Your task to perform on an android device: Open Google Chrome and open the bookmarks view Image 0: 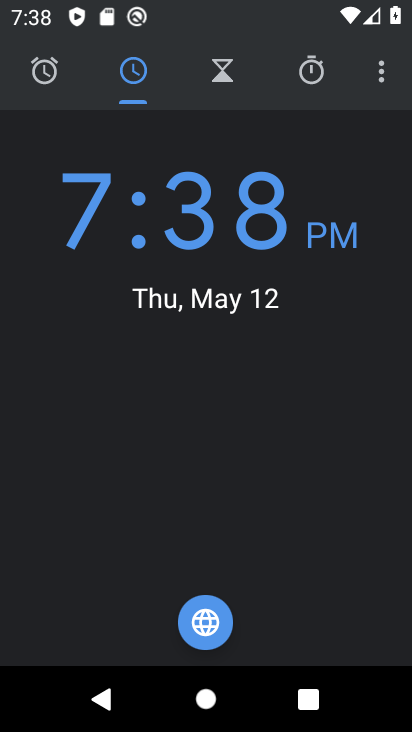
Step 0: press home button
Your task to perform on an android device: Open Google Chrome and open the bookmarks view Image 1: 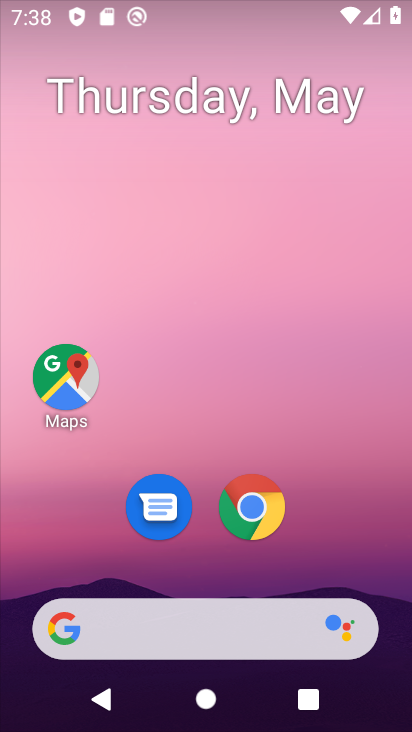
Step 1: drag from (263, 653) to (122, 225)
Your task to perform on an android device: Open Google Chrome and open the bookmarks view Image 2: 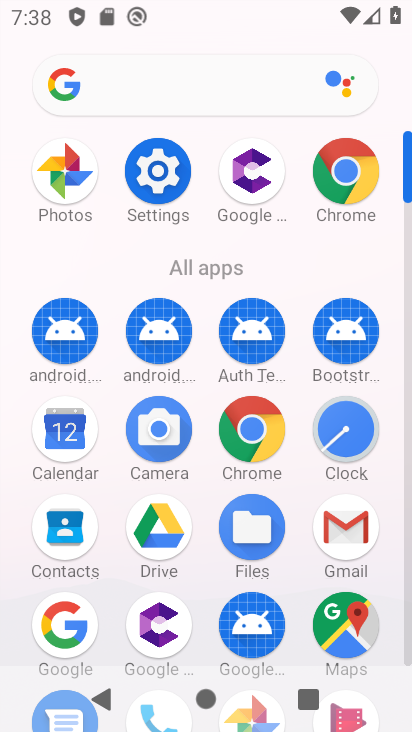
Step 2: click (255, 426)
Your task to perform on an android device: Open Google Chrome and open the bookmarks view Image 3: 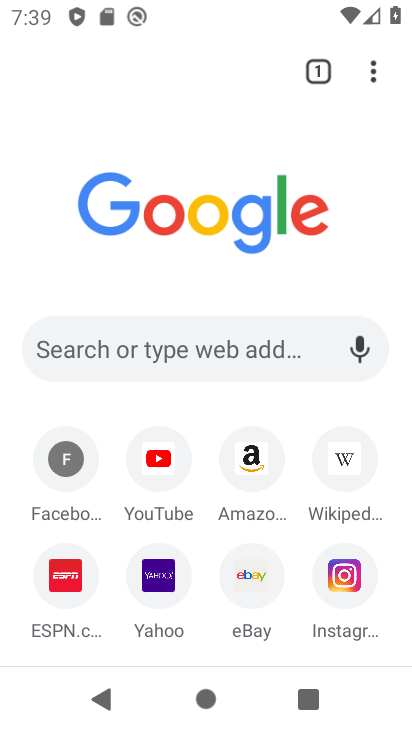
Step 3: click (366, 87)
Your task to perform on an android device: Open Google Chrome and open the bookmarks view Image 4: 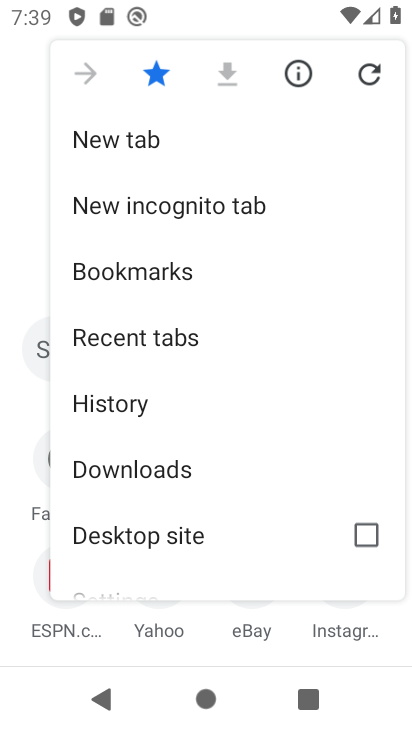
Step 4: click (156, 265)
Your task to perform on an android device: Open Google Chrome and open the bookmarks view Image 5: 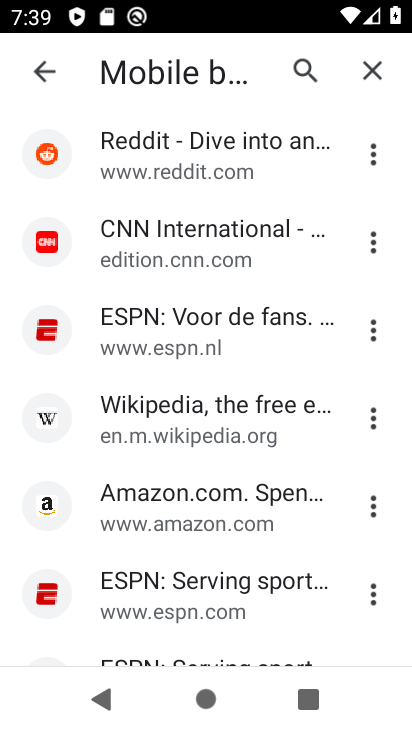
Step 5: task complete